Your task to perform on an android device: Open Chrome and go to settings Image 0: 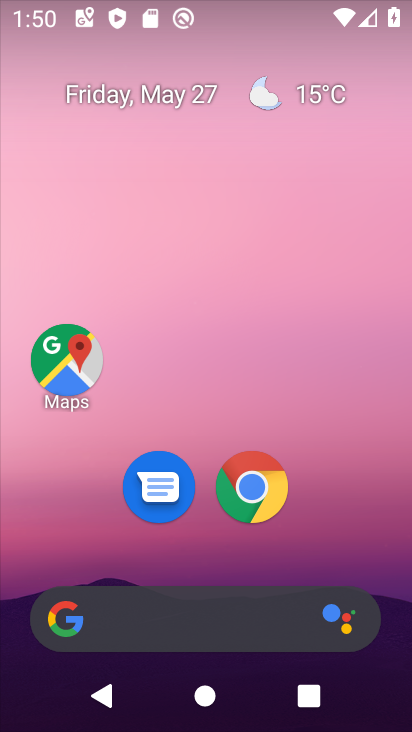
Step 0: click (263, 486)
Your task to perform on an android device: Open Chrome and go to settings Image 1: 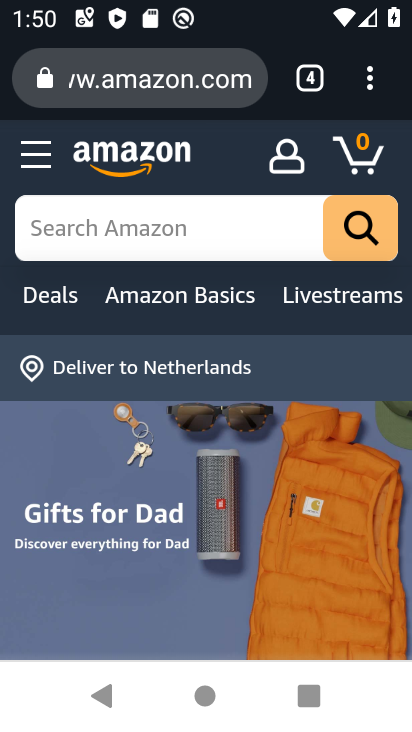
Step 1: click (385, 70)
Your task to perform on an android device: Open Chrome and go to settings Image 2: 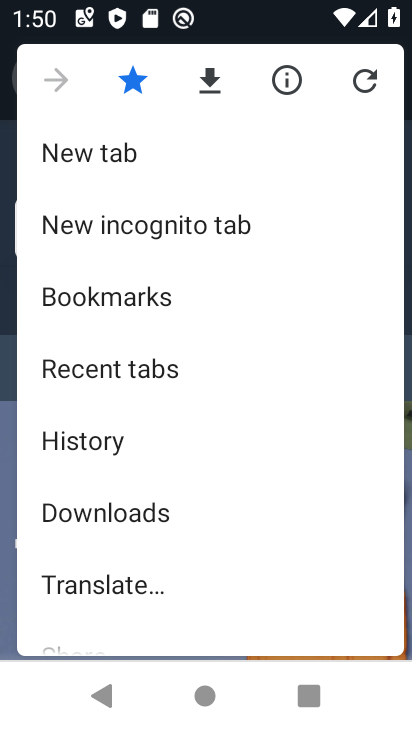
Step 2: drag from (83, 556) to (202, 54)
Your task to perform on an android device: Open Chrome and go to settings Image 3: 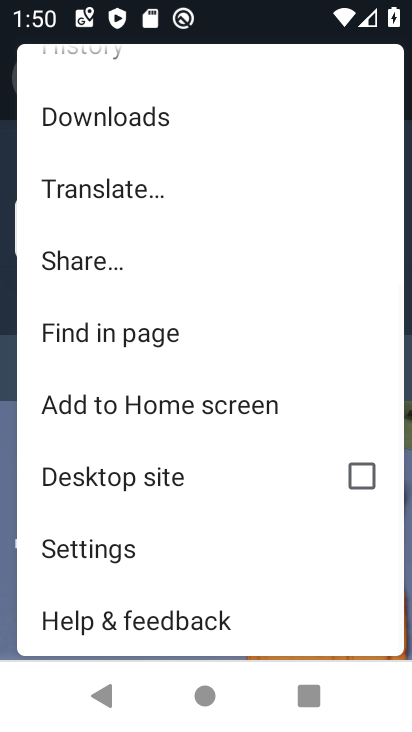
Step 3: click (60, 566)
Your task to perform on an android device: Open Chrome and go to settings Image 4: 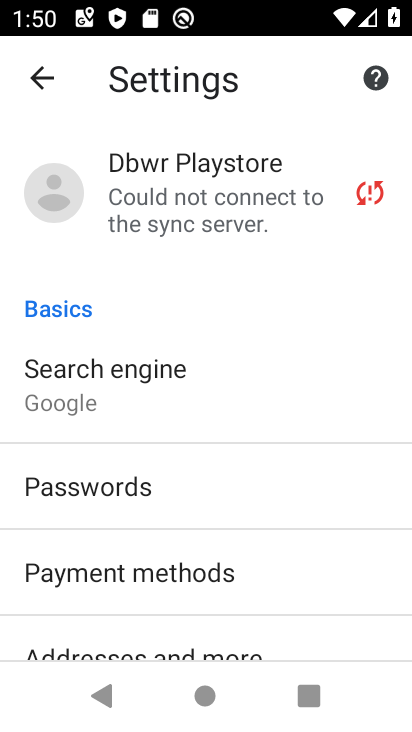
Step 4: task complete